Your task to perform on an android device: Go to privacy settings Image 0: 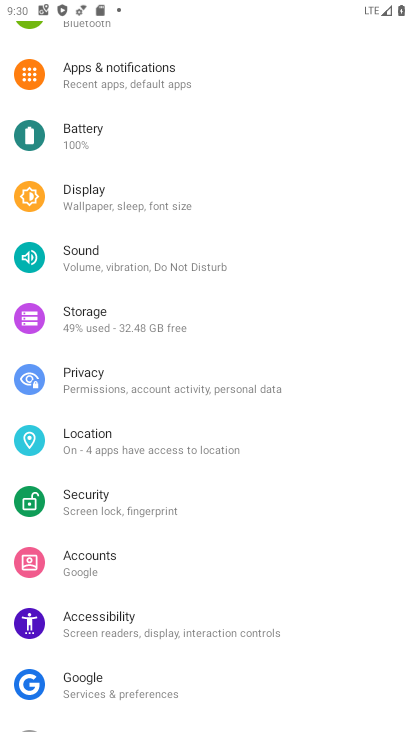
Step 0: click (137, 381)
Your task to perform on an android device: Go to privacy settings Image 1: 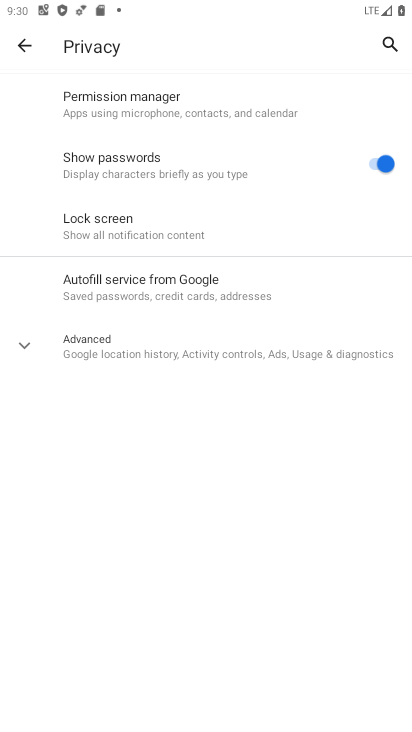
Step 1: task complete